Your task to perform on an android device: Open the Play Movies app and select the watchlist tab. Image 0: 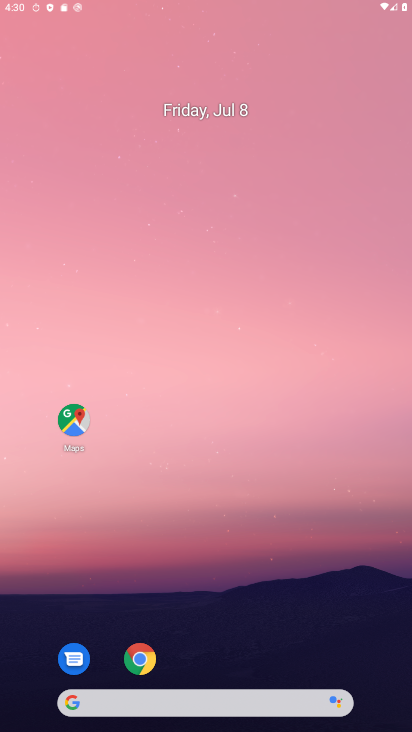
Step 0: drag from (315, 492) to (318, 114)
Your task to perform on an android device: Open the Play Movies app and select the watchlist tab. Image 1: 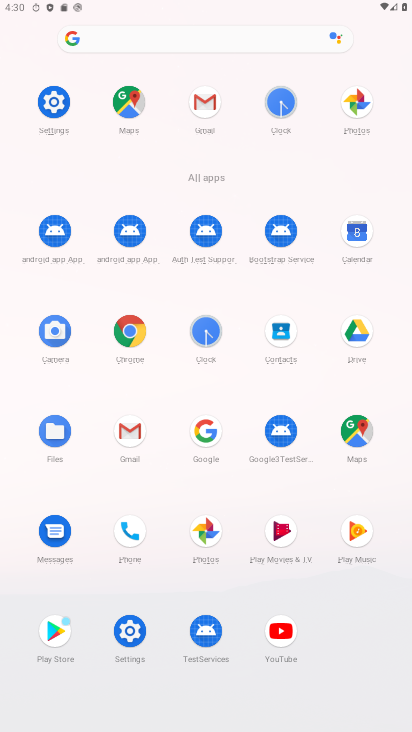
Step 1: click (284, 527)
Your task to perform on an android device: Open the Play Movies app and select the watchlist tab. Image 2: 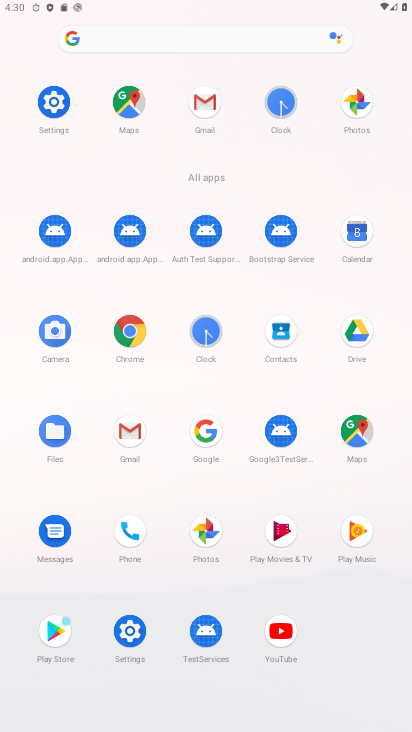
Step 2: click (285, 531)
Your task to perform on an android device: Open the Play Movies app and select the watchlist tab. Image 3: 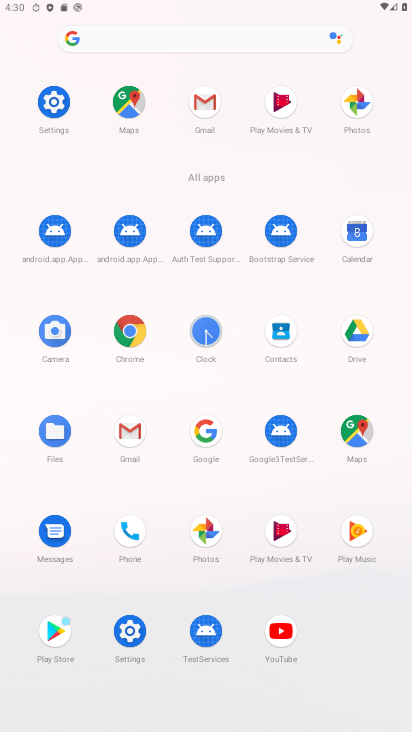
Step 3: task complete